Your task to perform on an android device: change the clock display to show seconds Image 0: 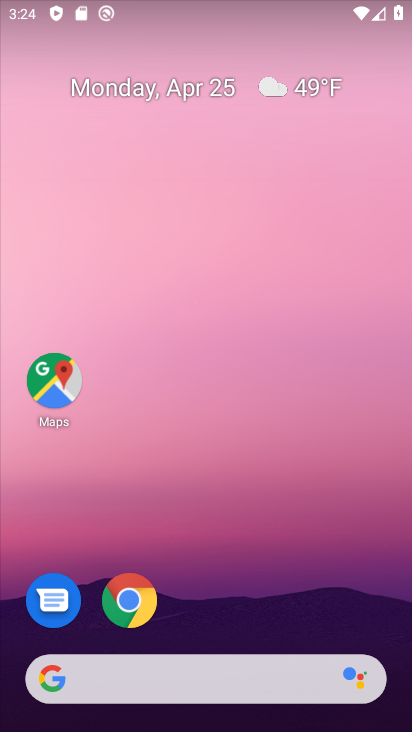
Step 0: drag from (284, 597) to (270, 1)
Your task to perform on an android device: change the clock display to show seconds Image 1: 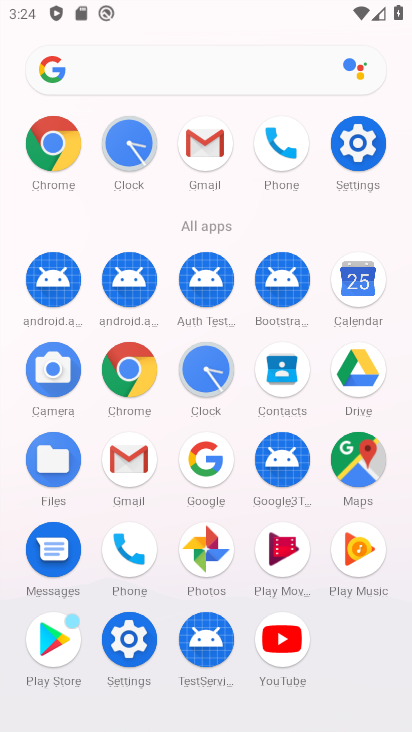
Step 1: click (130, 147)
Your task to perform on an android device: change the clock display to show seconds Image 2: 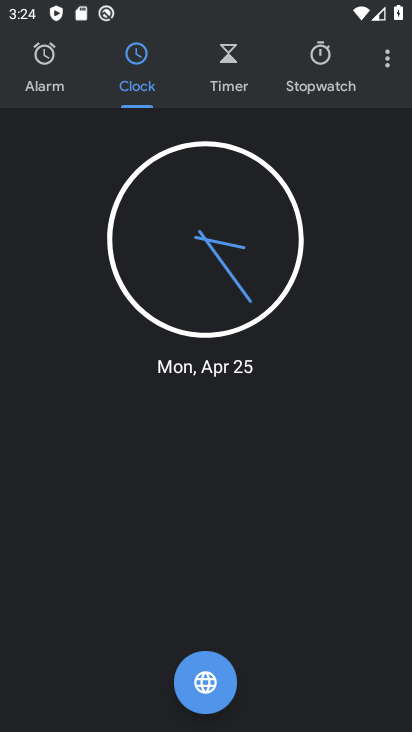
Step 2: click (391, 52)
Your task to perform on an android device: change the clock display to show seconds Image 3: 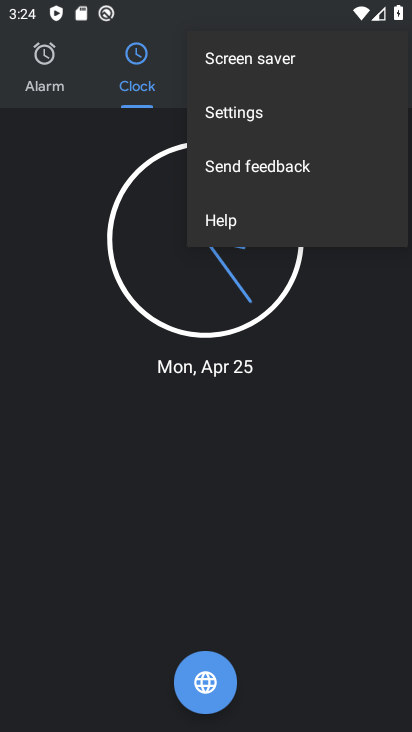
Step 3: click (290, 113)
Your task to perform on an android device: change the clock display to show seconds Image 4: 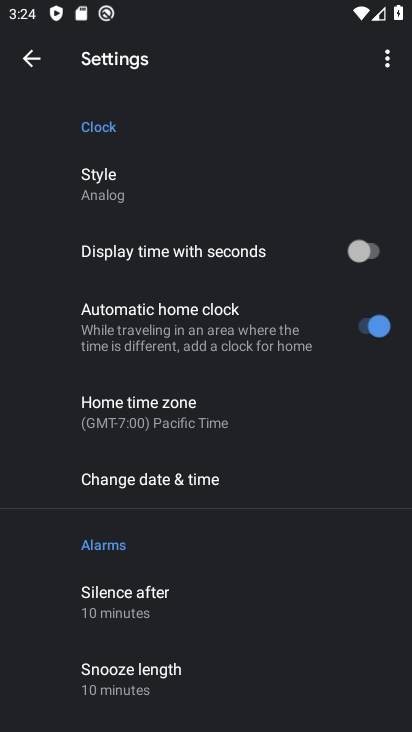
Step 4: click (367, 246)
Your task to perform on an android device: change the clock display to show seconds Image 5: 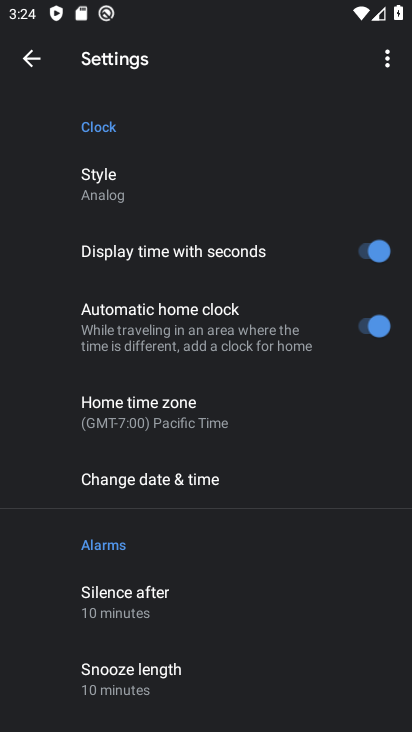
Step 5: click (38, 59)
Your task to perform on an android device: change the clock display to show seconds Image 6: 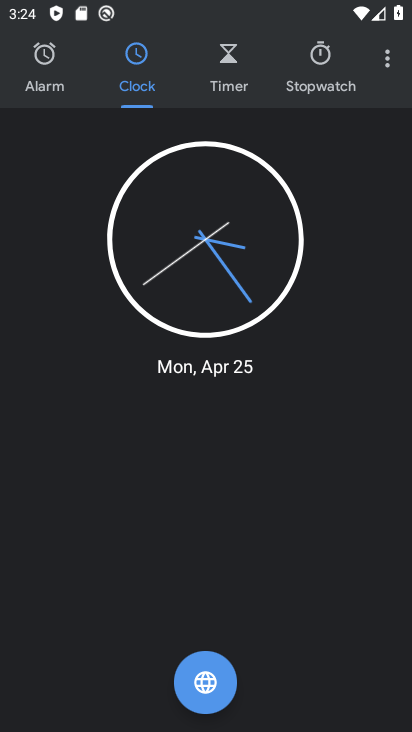
Step 6: task complete